Your task to perform on an android device: toggle translation in the chrome app Image 0: 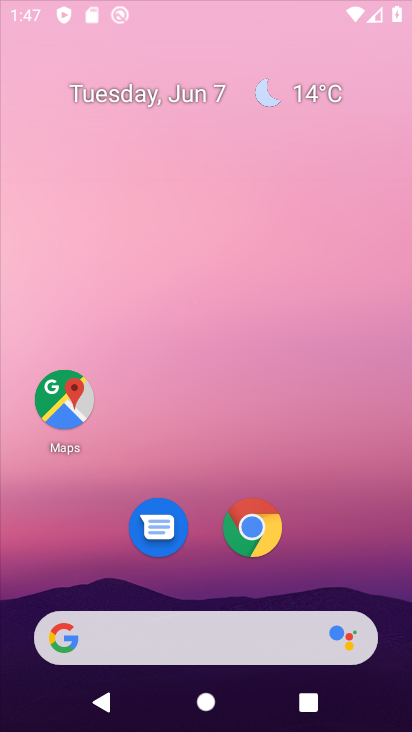
Step 0: press home button
Your task to perform on an android device: toggle translation in the chrome app Image 1: 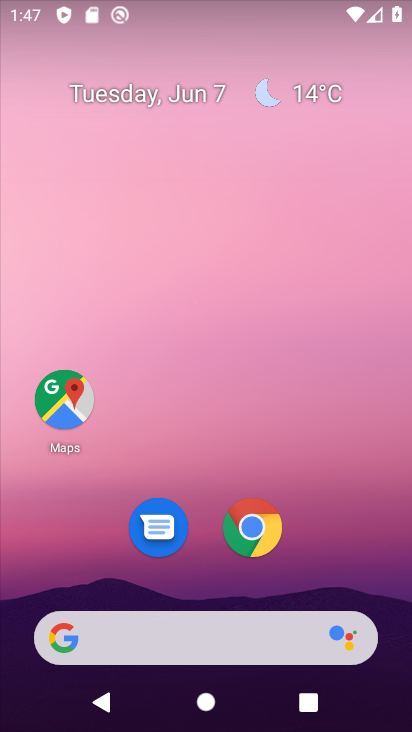
Step 1: click (267, 536)
Your task to perform on an android device: toggle translation in the chrome app Image 2: 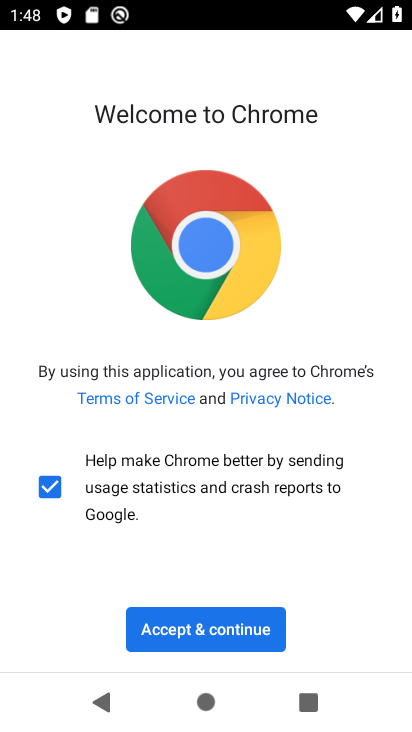
Step 2: click (247, 638)
Your task to perform on an android device: toggle translation in the chrome app Image 3: 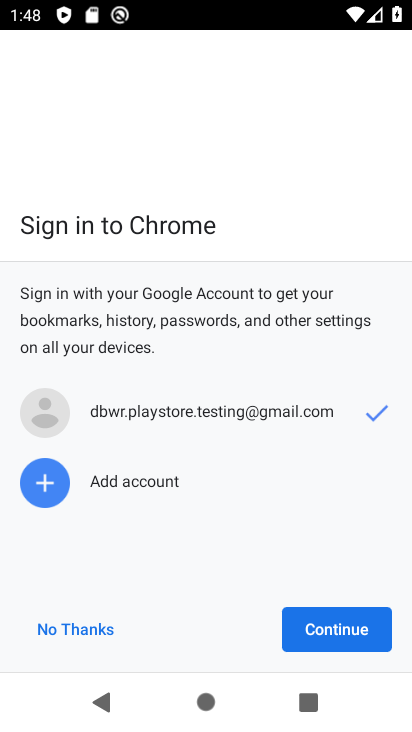
Step 3: click (308, 633)
Your task to perform on an android device: toggle translation in the chrome app Image 4: 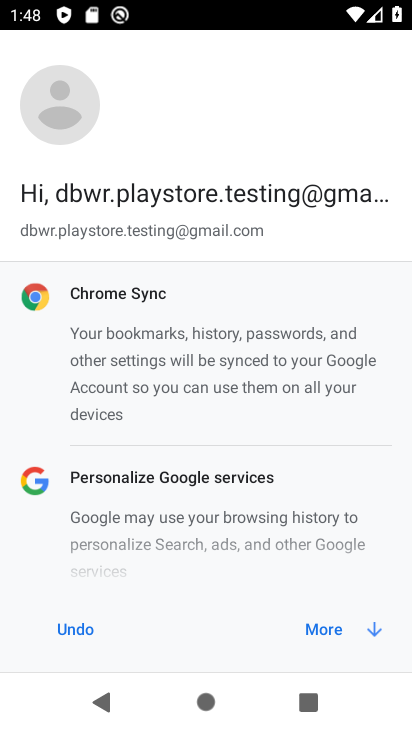
Step 4: click (334, 628)
Your task to perform on an android device: toggle translation in the chrome app Image 5: 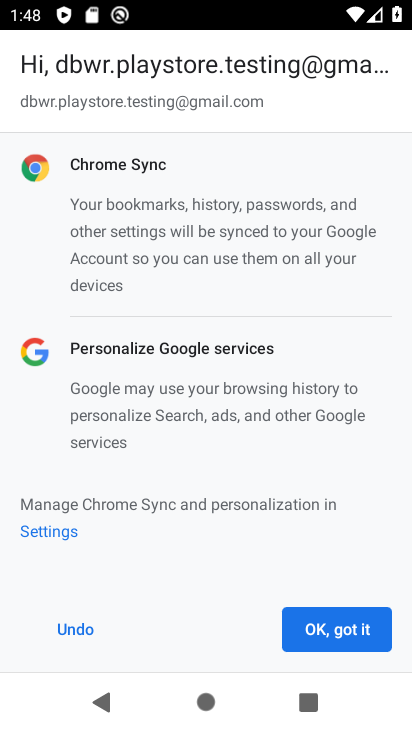
Step 5: click (334, 628)
Your task to perform on an android device: toggle translation in the chrome app Image 6: 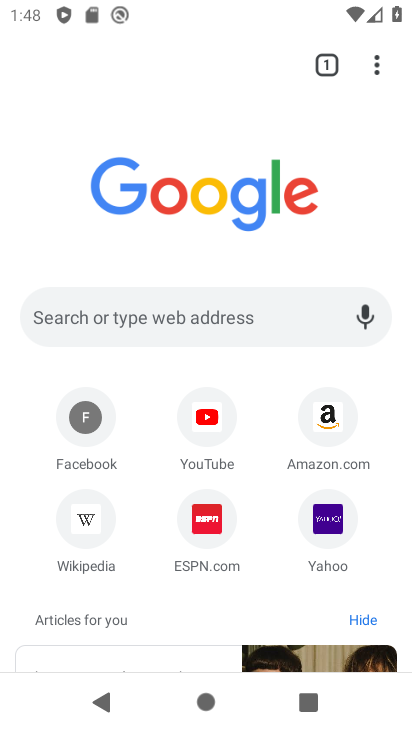
Step 6: click (376, 55)
Your task to perform on an android device: toggle translation in the chrome app Image 7: 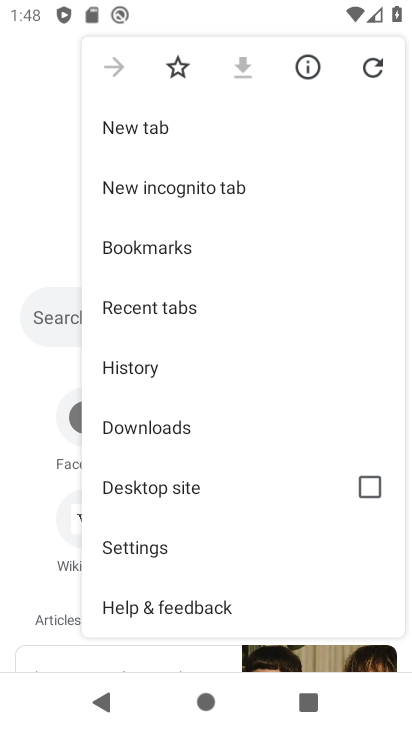
Step 7: click (233, 552)
Your task to perform on an android device: toggle translation in the chrome app Image 8: 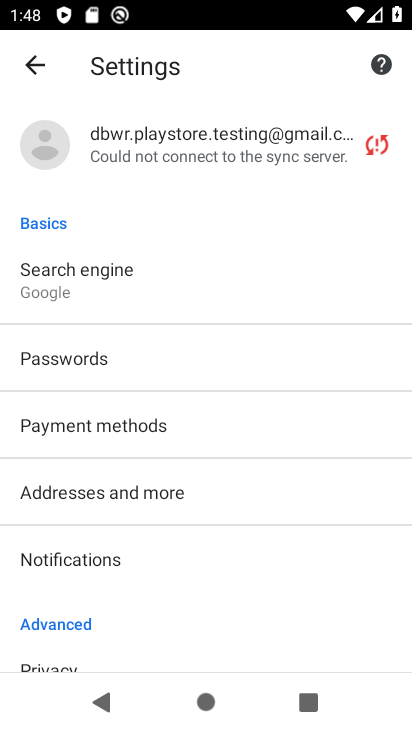
Step 8: drag from (234, 615) to (174, 77)
Your task to perform on an android device: toggle translation in the chrome app Image 9: 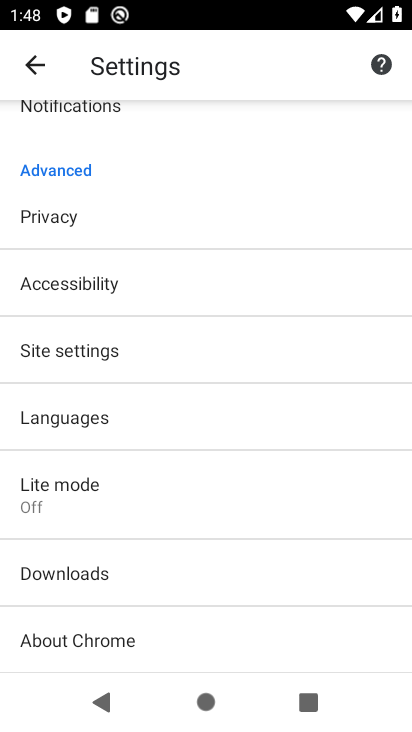
Step 9: click (170, 406)
Your task to perform on an android device: toggle translation in the chrome app Image 10: 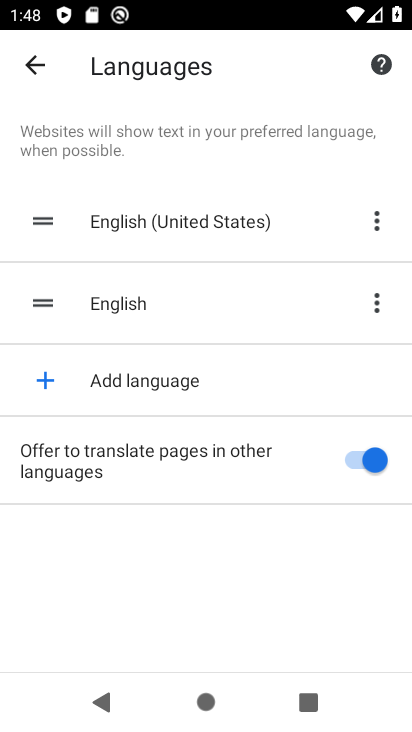
Step 10: click (355, 457)
Your task to perform on an android device: toggle translation in the chrome app Image 11: 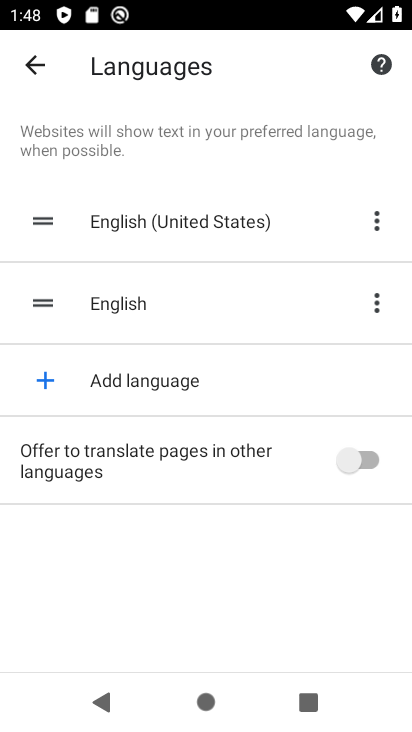
Step 11: task complete